Your task to perform on an android device: open app "Mercado Libre" (install if not already installed), go to login, and select forgot password Image 0: 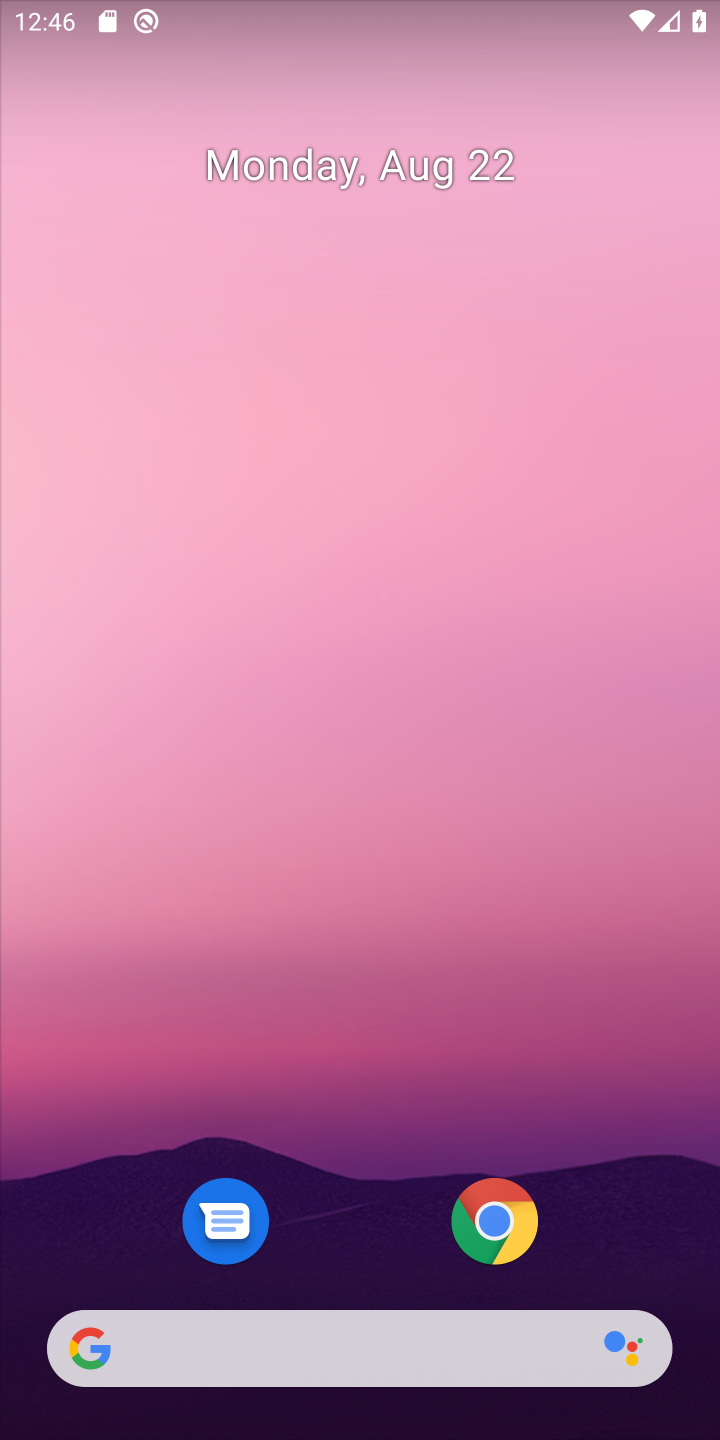
Step 0: drag from (350, 1237) to (385, 166)
Your task to perform on an android device: open app "Mercado Libre" (install if not already installed), go to login, and select forgot password Image 1: 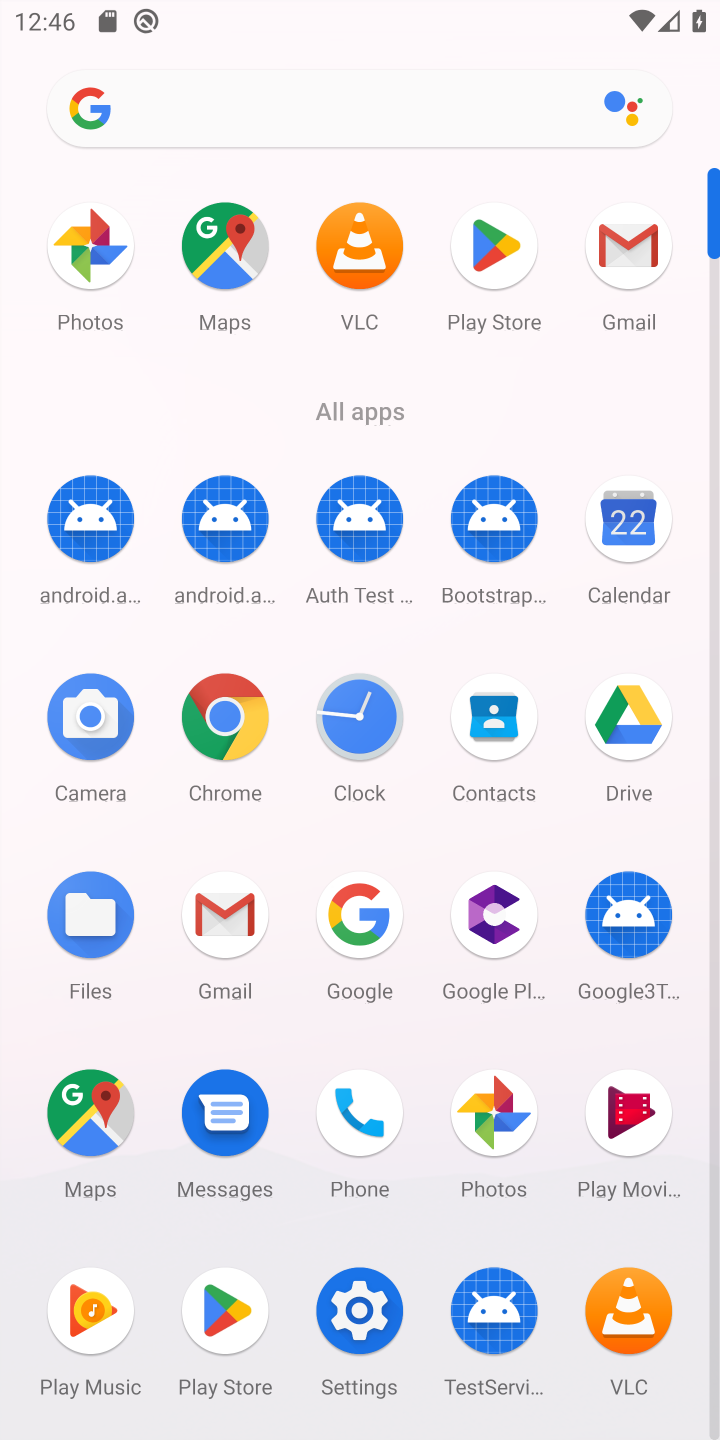
Step 1: click (498, 229)
Your task to perform on an android device: open app "Mercado Libre" (install if not already installed), go to login, and select forgot password Image 2: 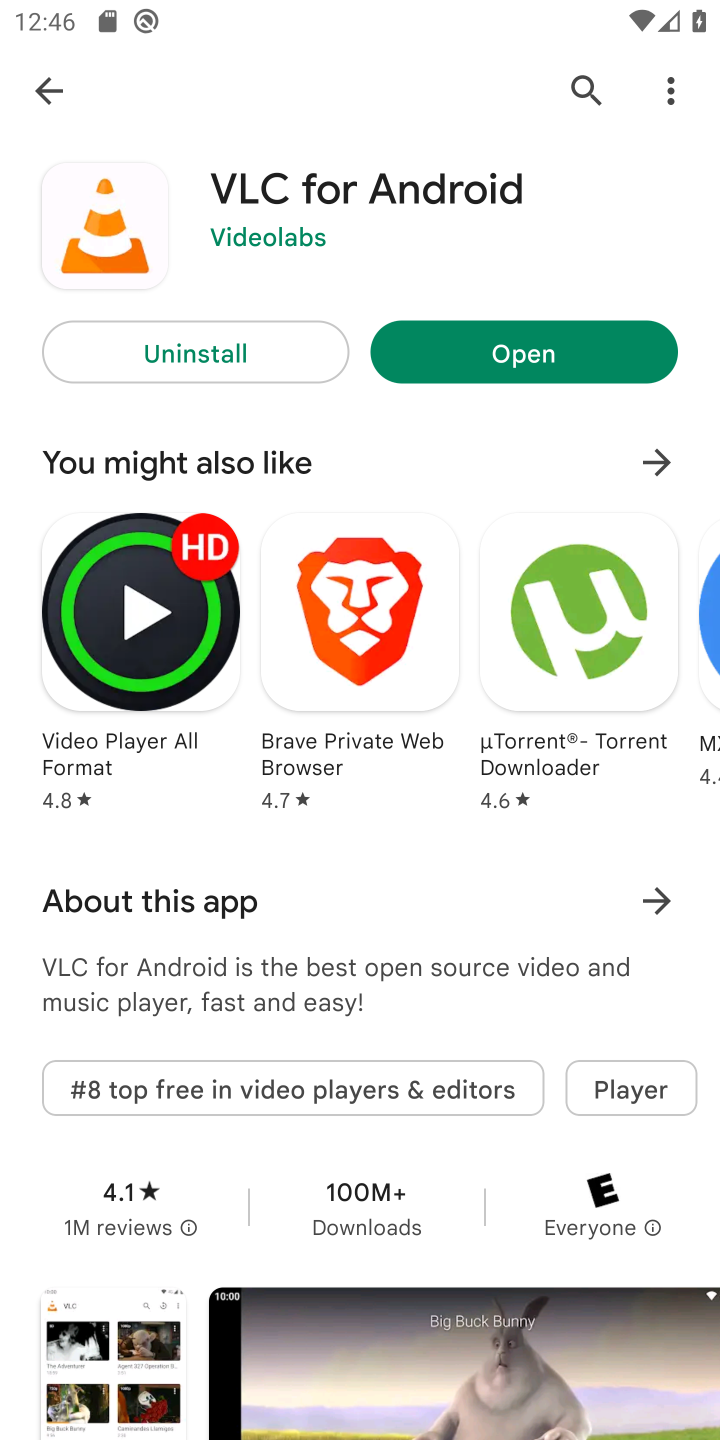
Step 2: click (530, 358)
Your task to perform on an android device: open app "Mercado Libre" (install if not already installed), go to login, and select forgot password Image 3: 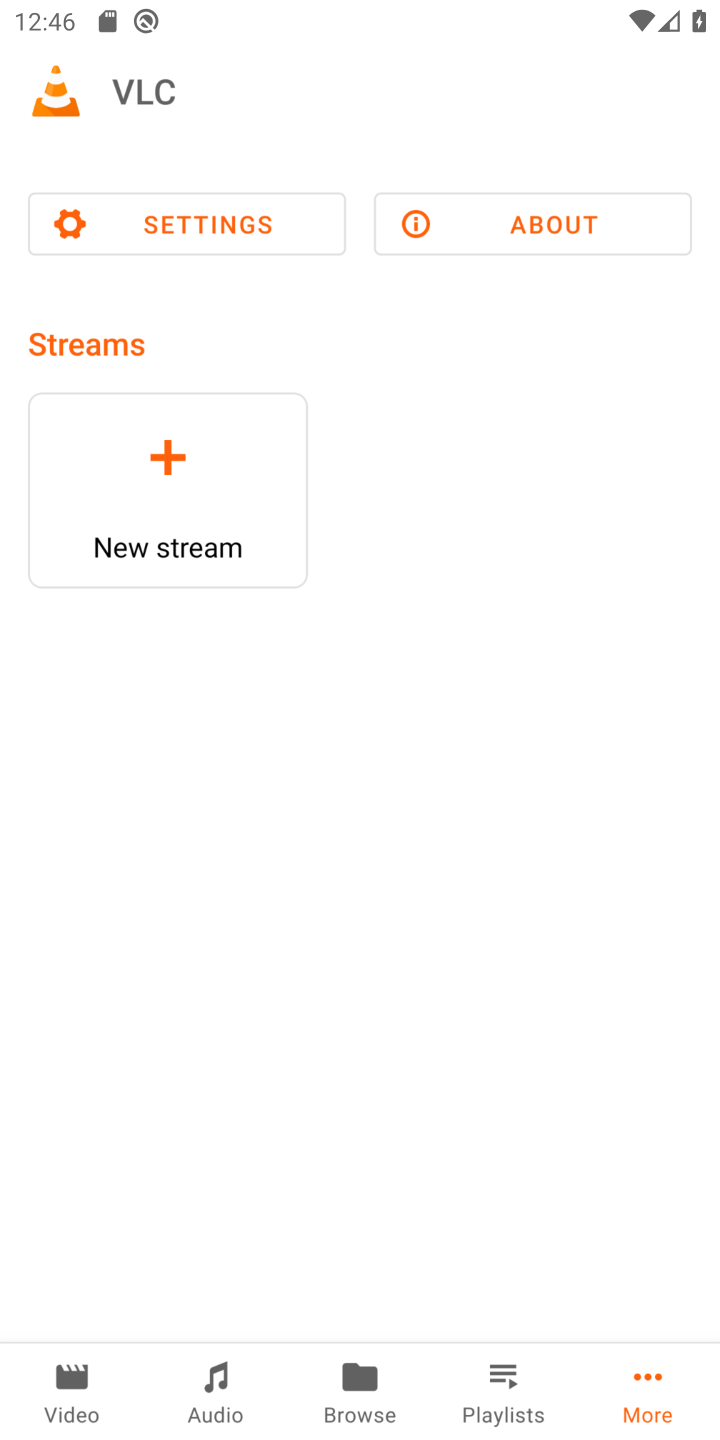
Step 3: click (573, 72)
Your task to perform on an android device: open app "Mercado Libre" (install if not already installed), go to login, and select forgot password Image 4: 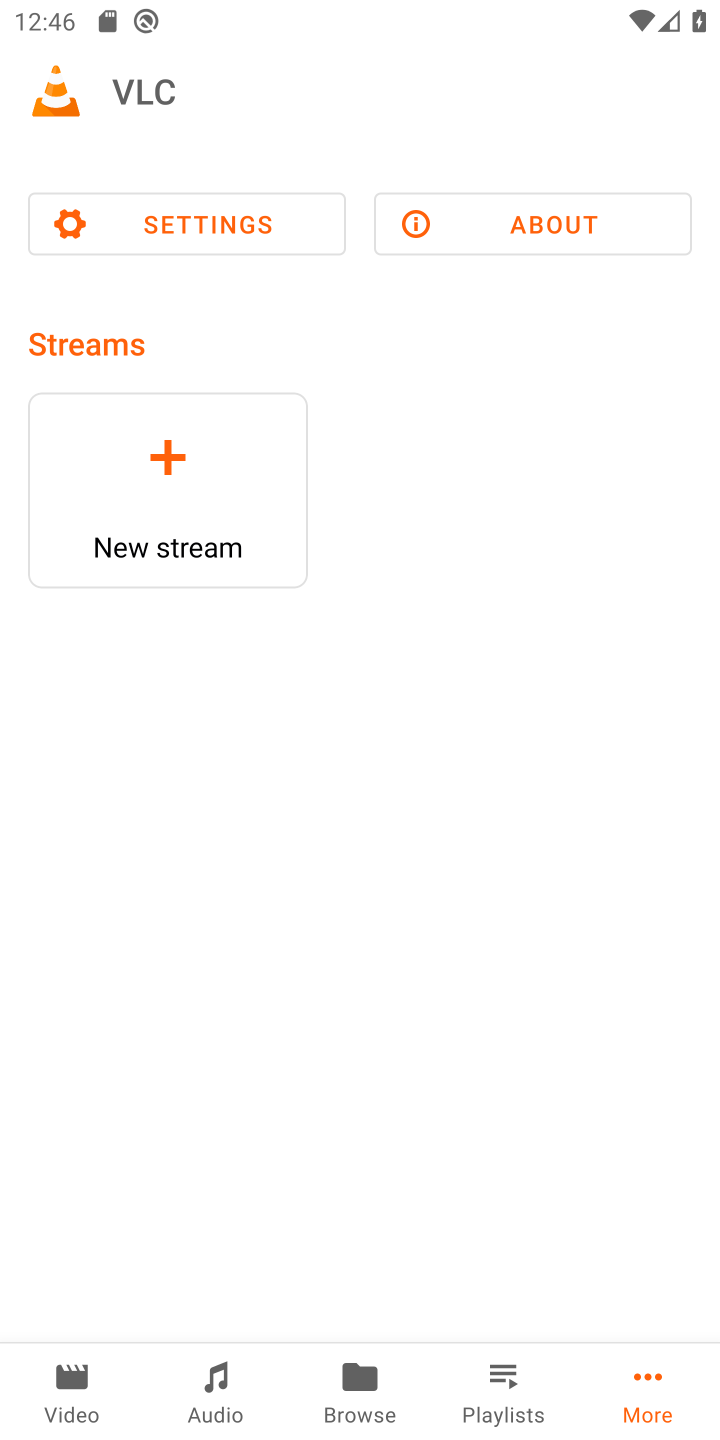
Step 4: press back button
Your task to perform on an android device: open app "Mercado Libre" (install if not already installed), go to login, and select forgot password Image 5: 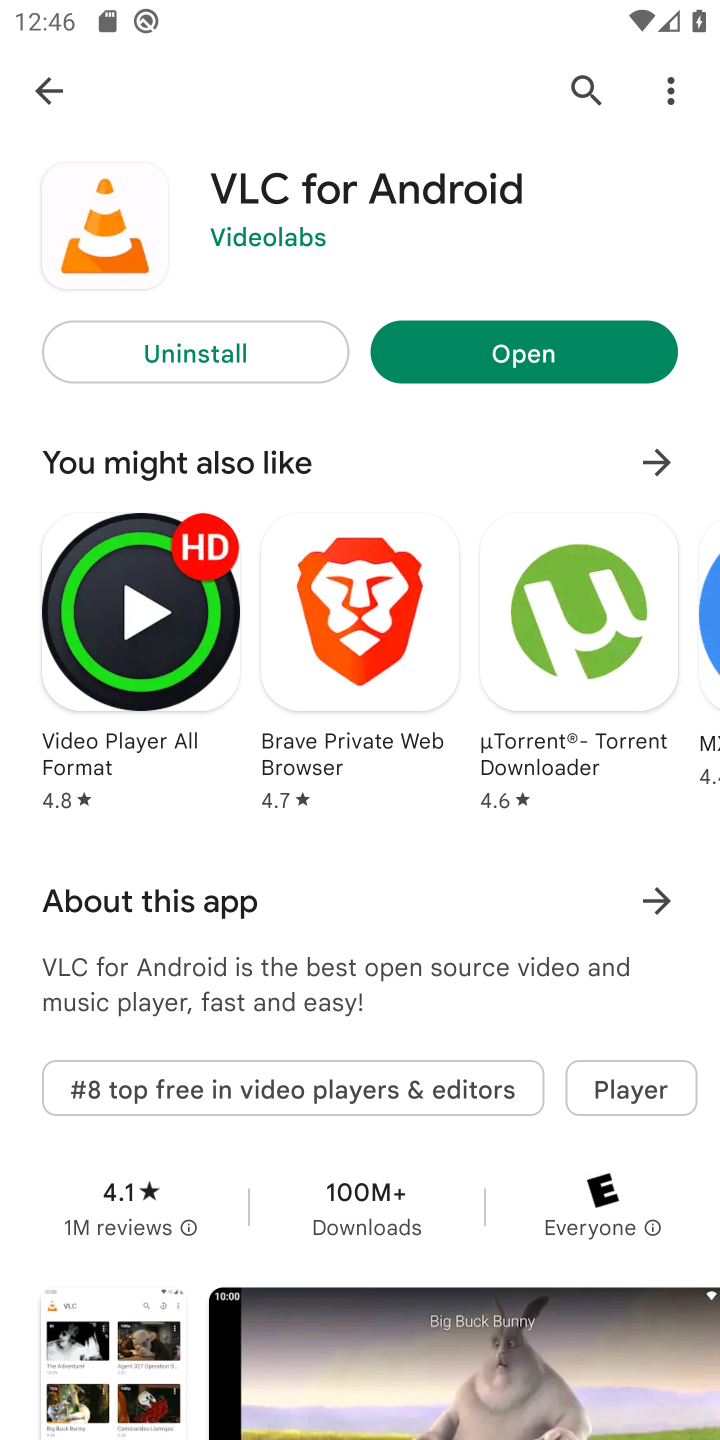
Step 5: click (581, 85)
Your task to perform on an android device: open app "Mercado Libre" (install if not already installed), go to login, and select forgot password Image 6: 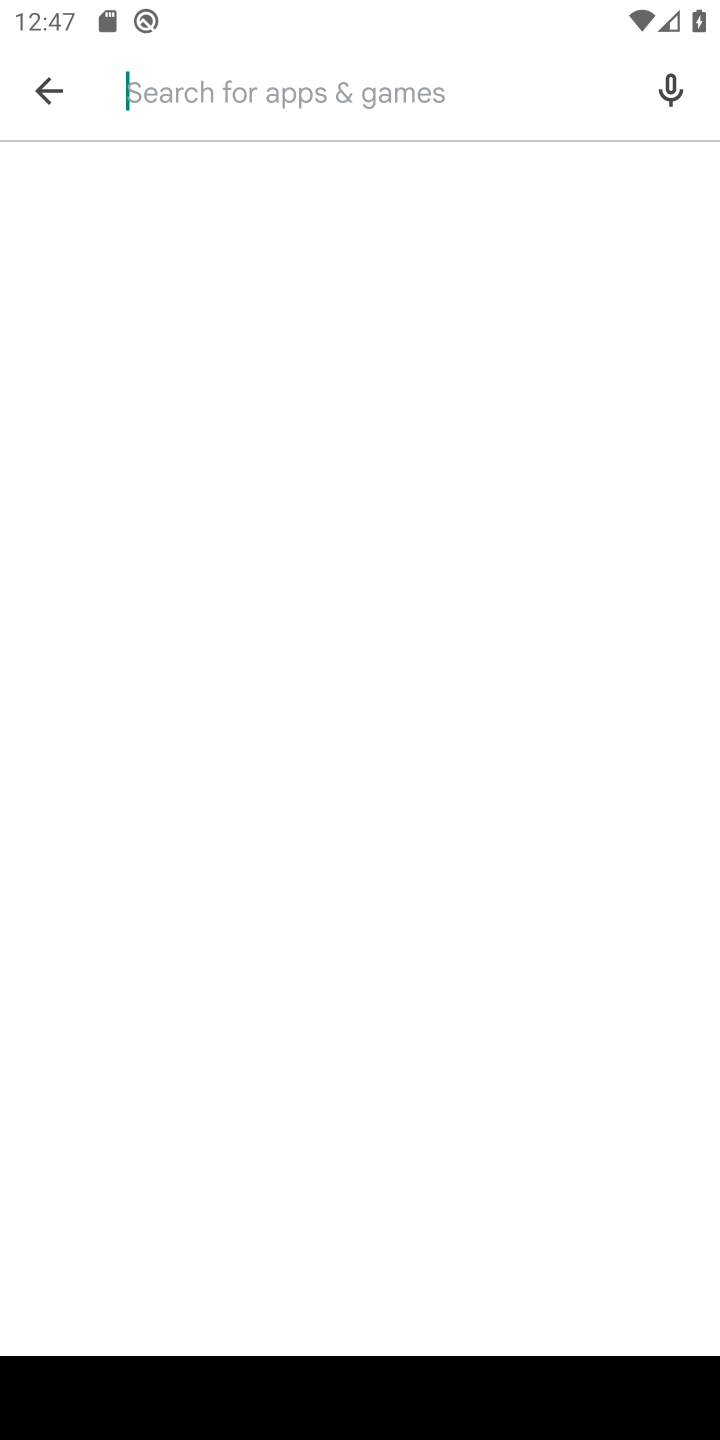
Step 6: type "Mercado Libre"
Your task to perform on an android device: open app "Mercado Libre" (install if not already installed), go to login, and select forgot password Image 7: 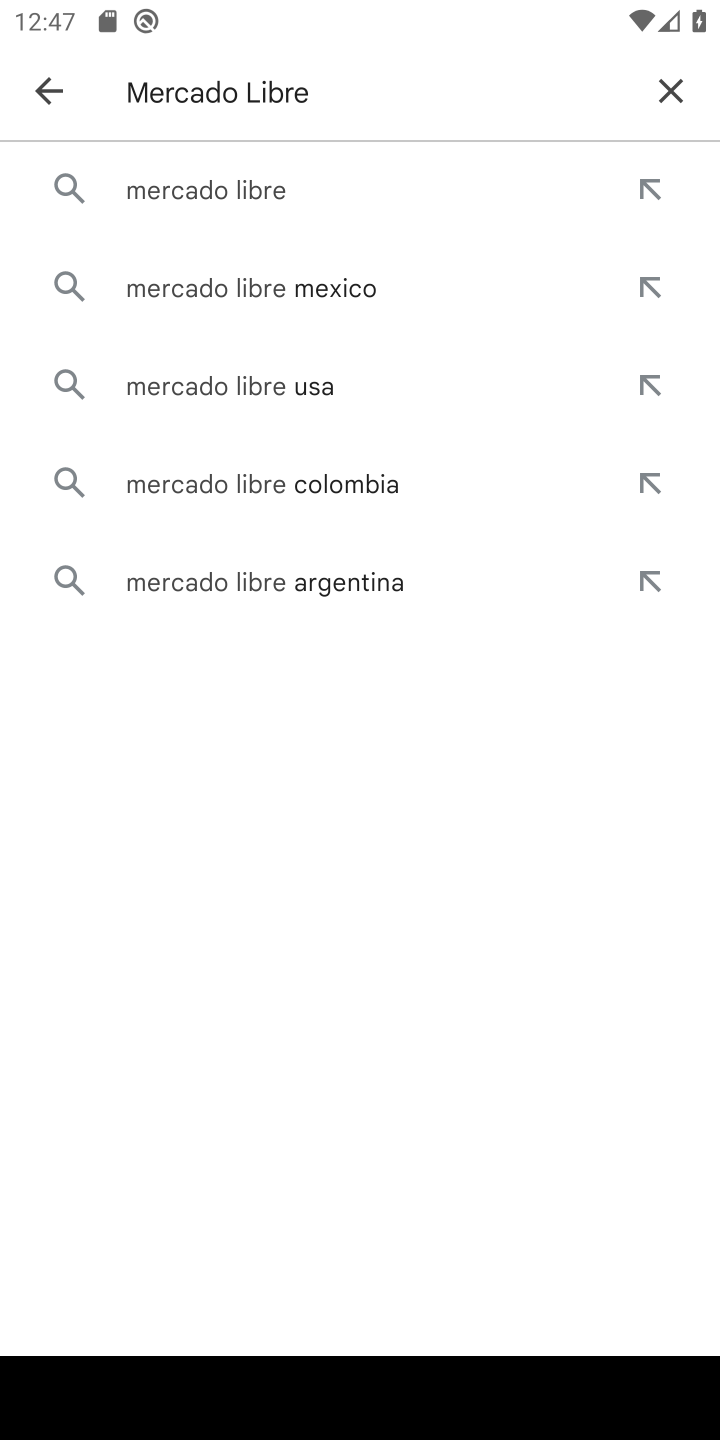
Step 7: click (245, 174)
Your task to perform on an android device: open app "Mercado Libre" (install if not already installed), go to login, and select forgot password Image 8: 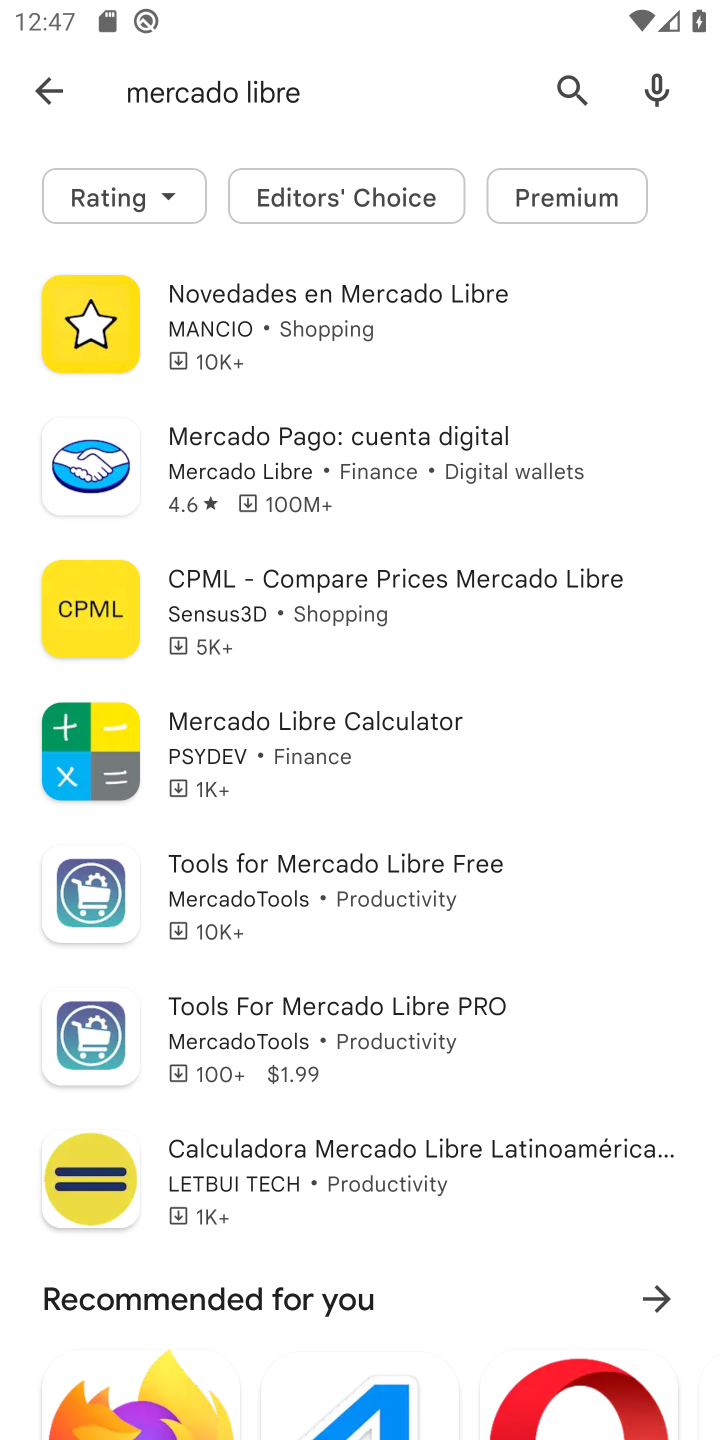
Step 8: task complete